Your task to perform on an android device: Open my contact list Image 0: 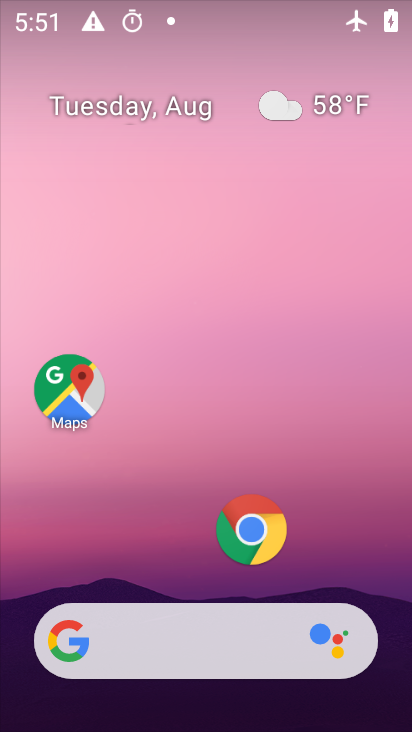
Step 0: drag from (171, 554) to (198, 177)
Your task to perform on an android device: Open my contact list Image 1: 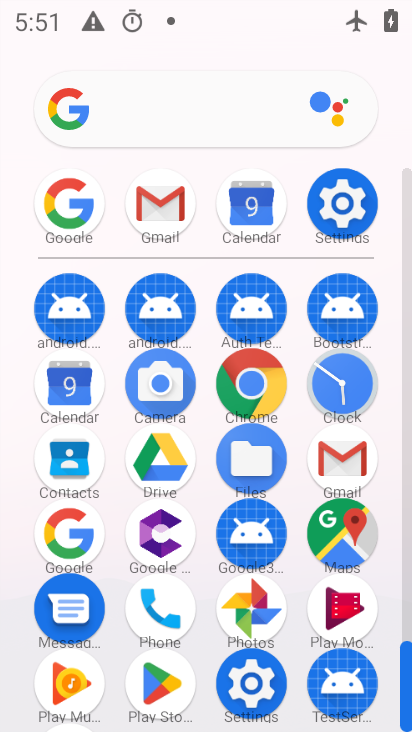
Step 1: click (79, 457)
Your task to perform on an android device: Open my contact list Image 2: 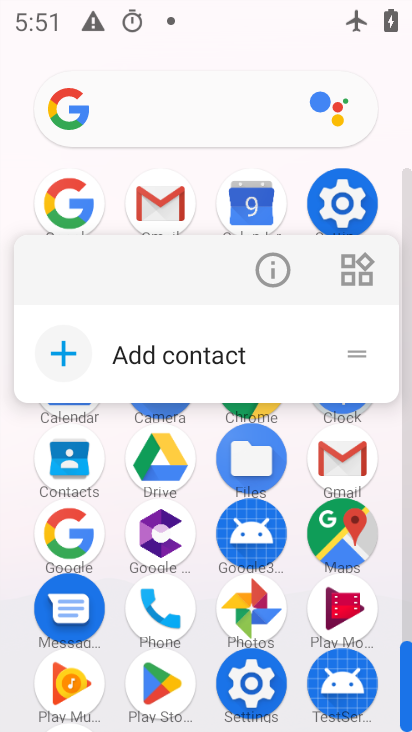
Step 2: click (86, 455)
Your task to perform on an android device: Open my contact list Image 3: 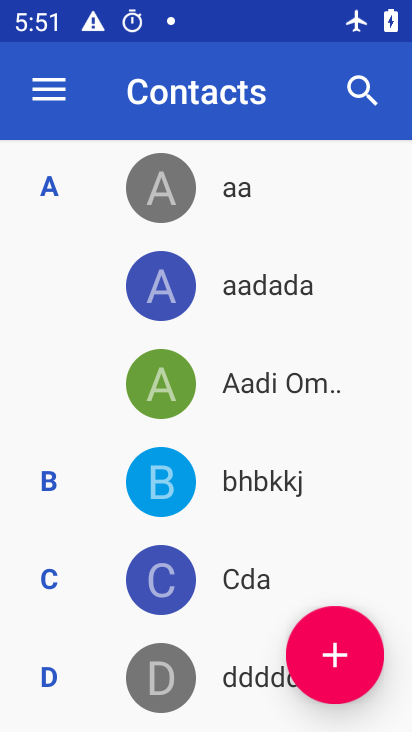
Step 3: task complete